Your task to perform on an android device: set default search engine in the chrome app Image 0: 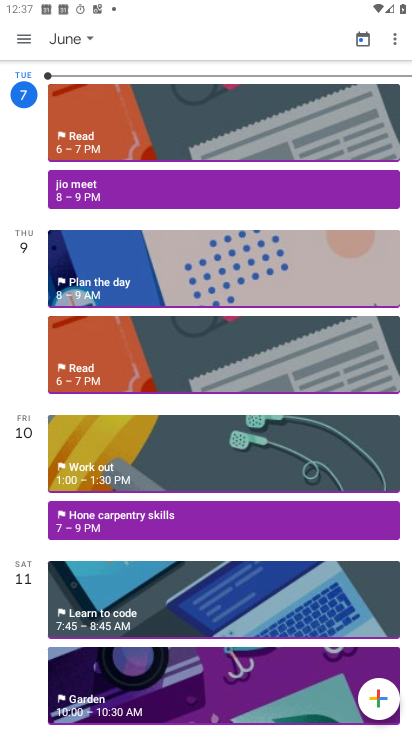
Step 0: press home button
Your task to perform on an android device: set default search engine in the chrome app Image 1: 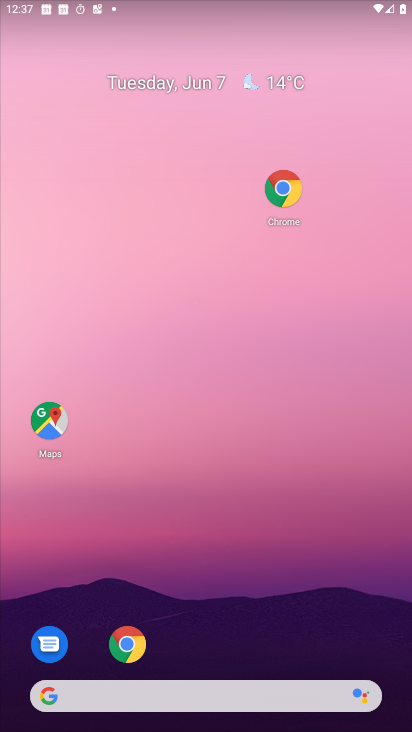
Step 1: click (282, 185)
Your task to perform on an android device: set default search engine in the chrome app Image 2: 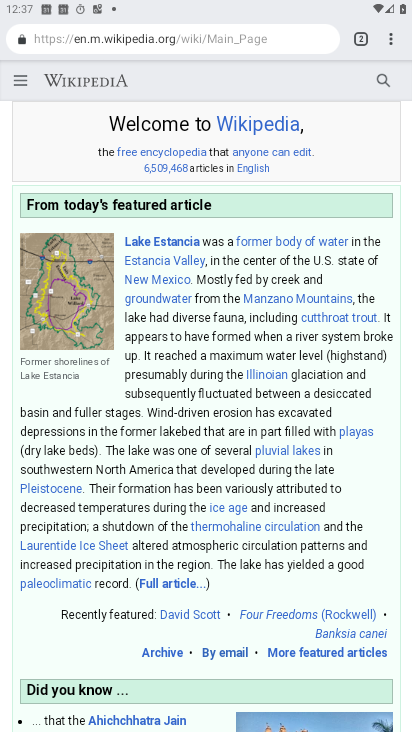
Step 2: click (386, 34)
Your task to perform on an android device: set default search engine in the chrome app Image 3: 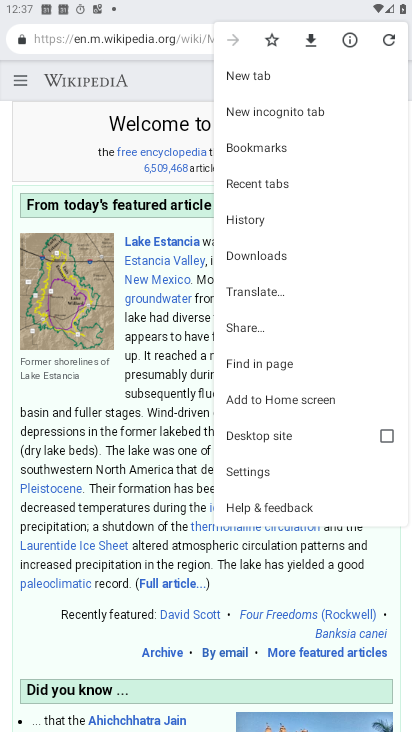
Step 3: click (285, 476)
Your task to perform on an android device: set default search engine in the chrome app Image 4: 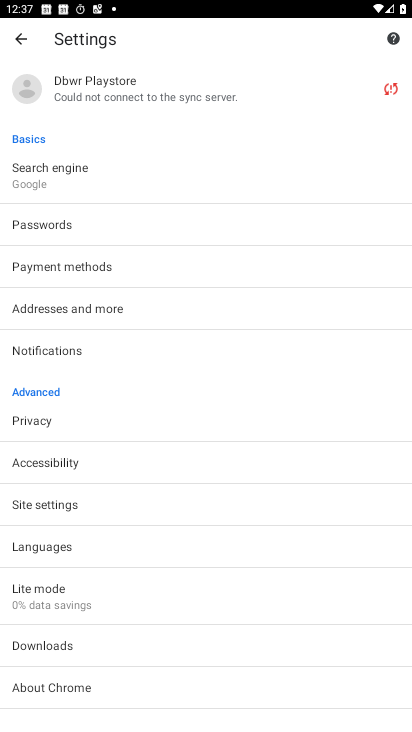
Step 4: click (93, 186)
Your task to perform on an android device: set default search engine in the chrome app Image 5: 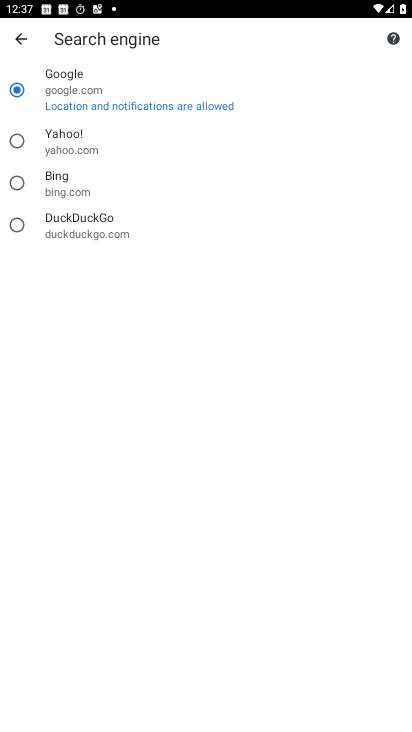
Step 5: task complete